Your task to perform on an android device: Open Yahoo.com Image 0: 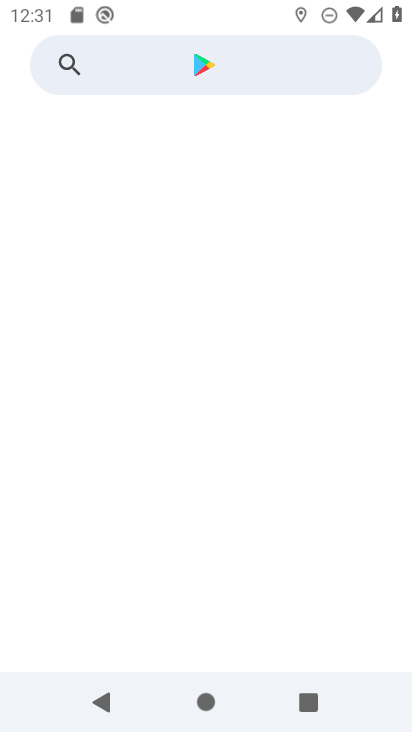
Step 0: press home button
Your task to perform on an android device: Open Yahoo.com Image 1: 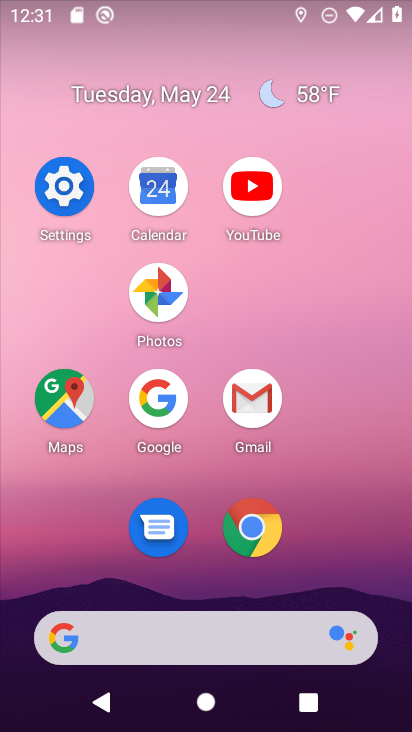
Step 1: click (273, 521)
Your task to perform on an android device: Open Yahoo.com Image 2: 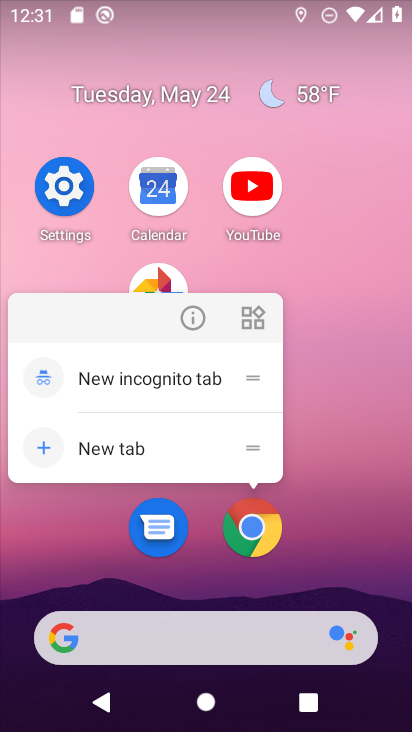
Step 2: click (264, 510)
Your task to perform on an android device: Open Yahoo.com Image 3: 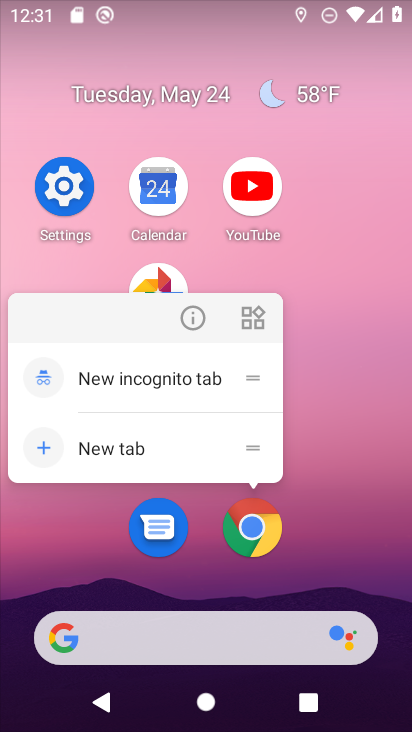
Step 3: click (254, 538)
Your task to perform on an android device: Open Yahoo.com Image 4: 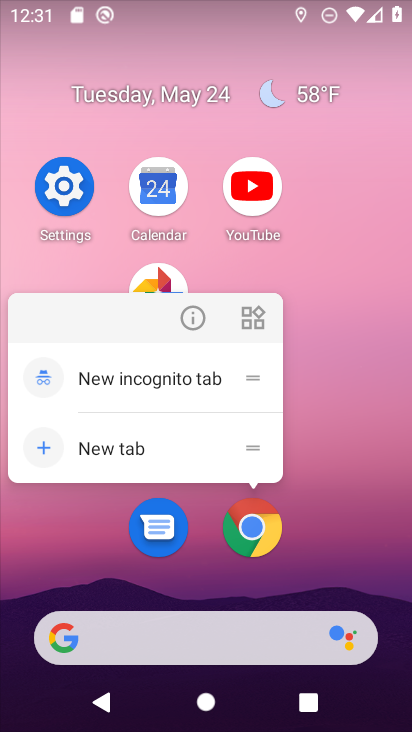
Step 4: click (269, 521)
Your task to perform on an android device: Open Yahoo.com Image 5: 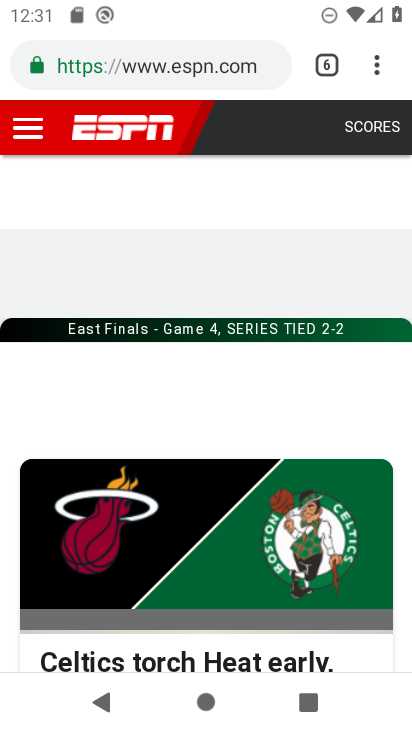
Step 5: click (345, 61)
Your task to perform on an android device: Open Yahoo.com Image 6: 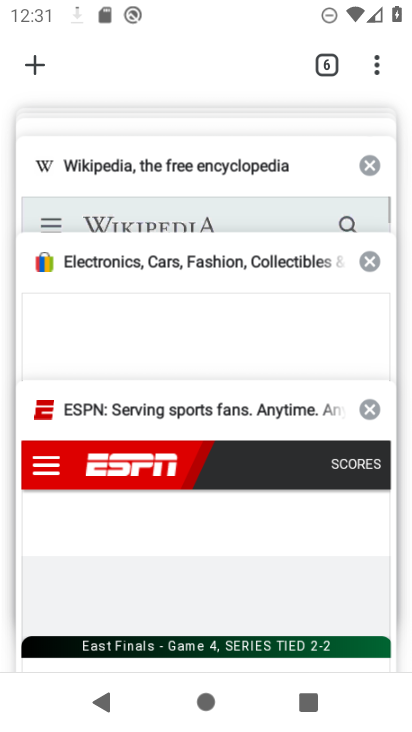
Step 6: drag from (263, 259) to (318, 503)
Your task to perform on an android device: Open Yahoo.com Image 7: 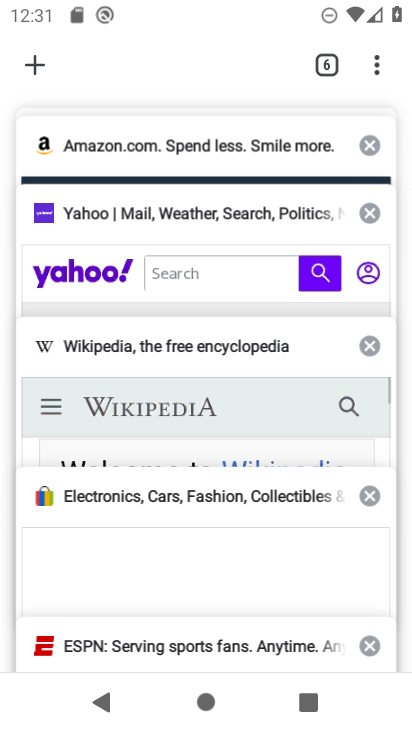
Step 7: click (189, 249)
Your task to perform on an android device: Open Yahoo.com Image 8: 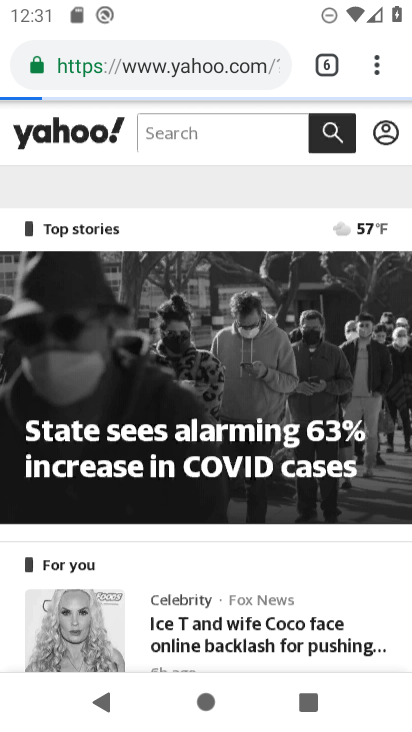
Step 8: task complete